Your task to perform on an android device: search for starred emails in the gmail app Image 0: 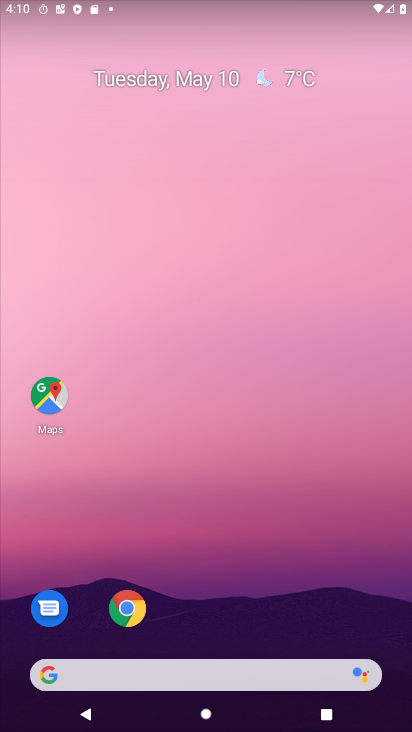
Step 0: drag from (340, 633) to (304, 0)
Your task to perform on an android device: search for starred emails in the gmail app Image 1: 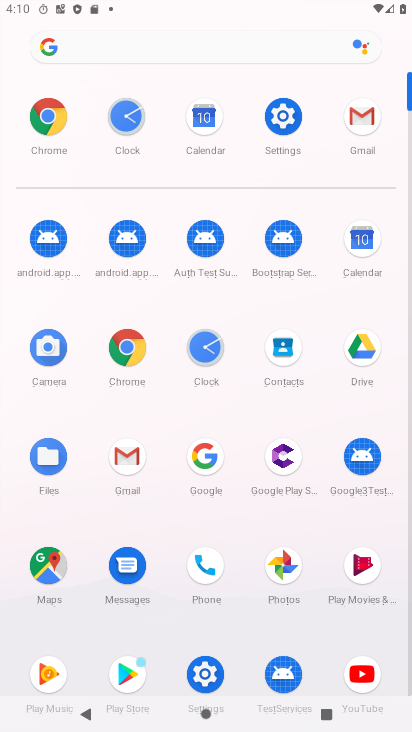
Step 1: click (367, 116)
Your task to perform on an android device: search for starred emails in the gmail app Image 2: 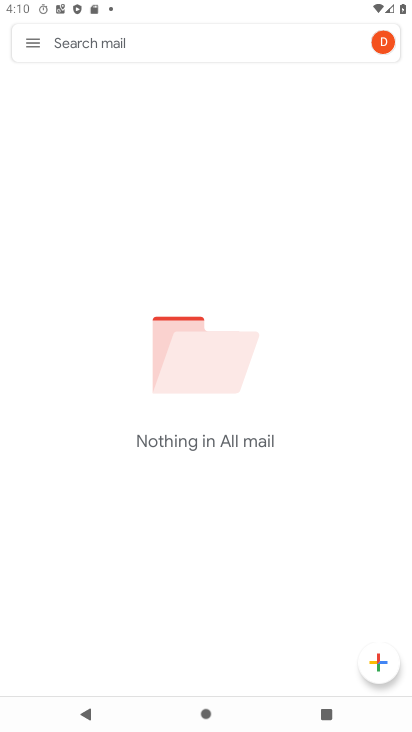
Step 2: click (34, 45)
Your task to perform on an android device: search for starred emails in the gmail app Image 3: 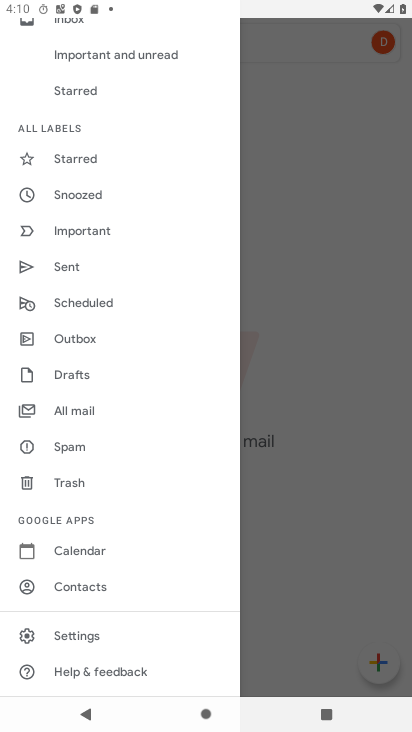
Step 3: click (69, 159)
Your task to perform on an android device: search for starred emails in the gmail app Image 4: 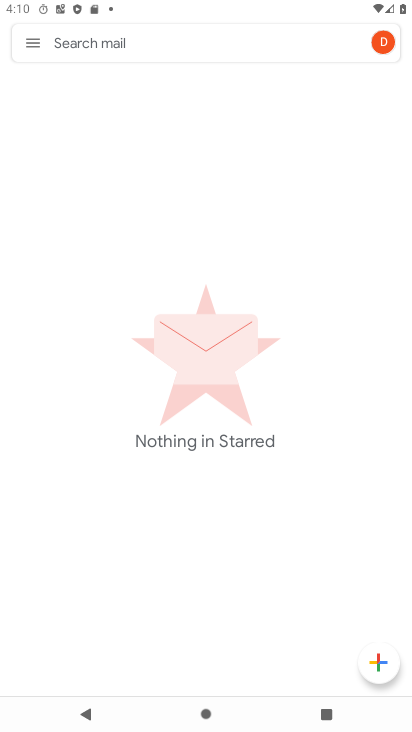
Step 4: task complete